Your task to perform on an android device: change timer sound Image 0: 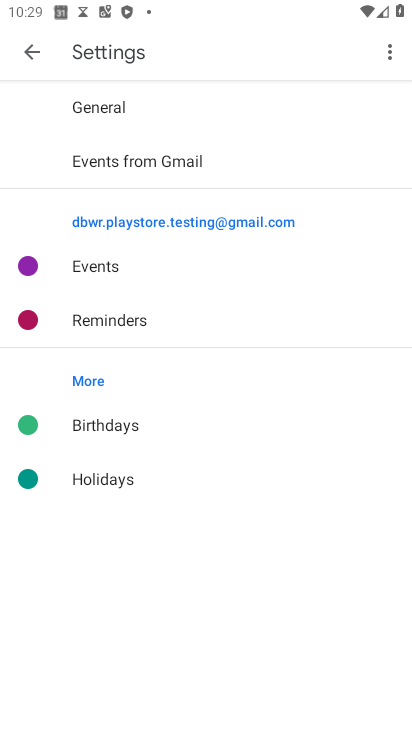
Step 0: press home button
Your task to perform on an android device: change timer sound Image 1: 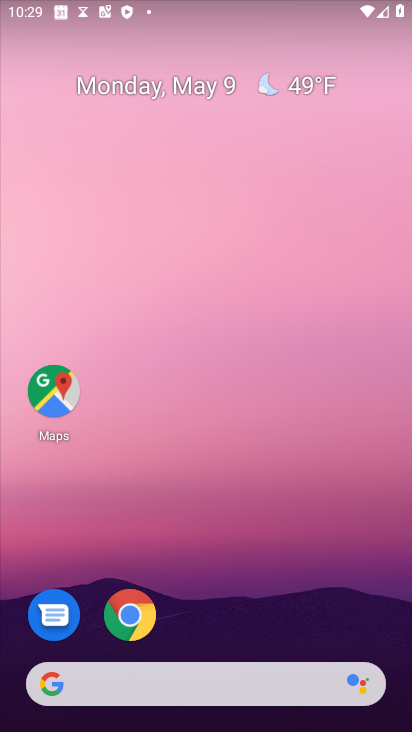
Step 1: drag from (197, 594) to (204, 123)
Your task to perform on an android device: change timer sound Image 2: 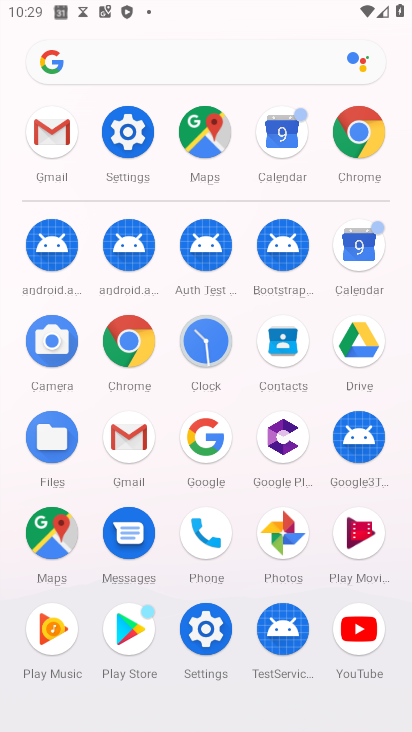
Step 2: click (214, 337)
Your task to perform on an android device: change timer sound Image 3: 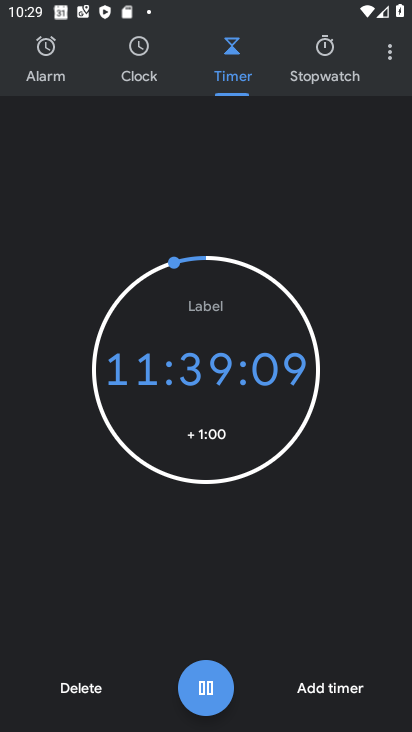
Step 3: drag from (385, 58) to (365, 91)
Your task to perform on an android device: change timer sound Image 4: 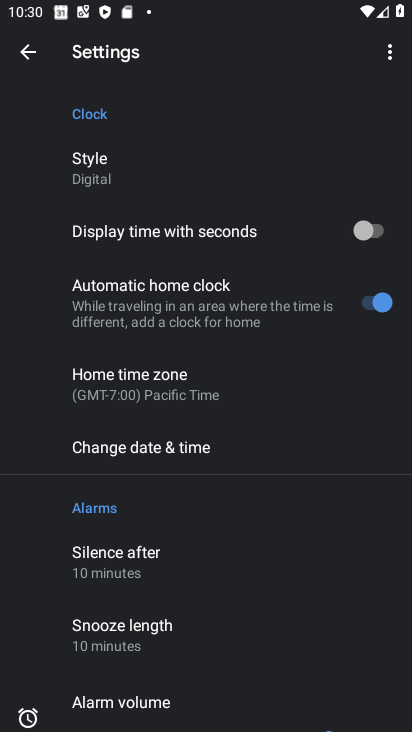
Step 4: drag from (196, 661) to (253, 207)
Your task to perform on an android device: change timer sound Image 5: 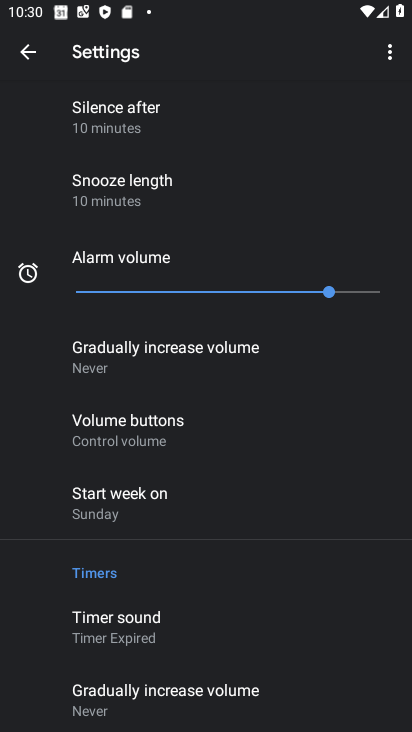
Step 5: click (154, 644)
Your task to perform on an android device: change timer sound Image 6: 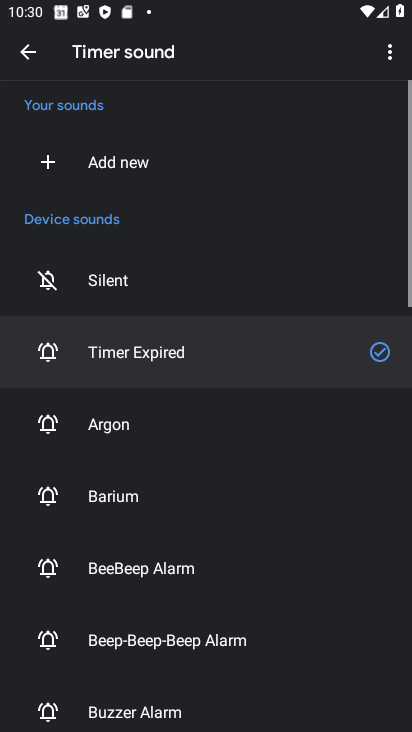
Step 6: click (206, 423)
Your task to perform on an android device: change timer sound Image 7: 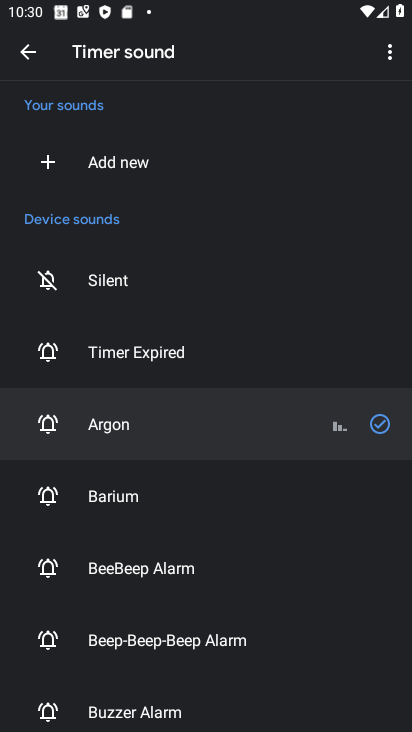
Step 7: task complete